Your task to perform on an android device: When is my next meeting? Image 0: 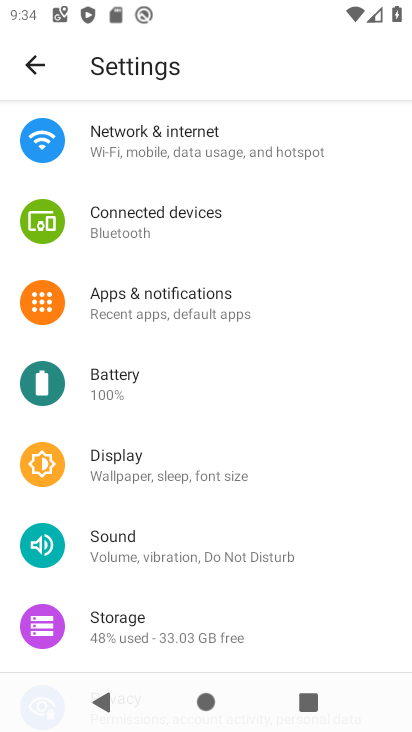
Step 0: press home button
Your task to perform on an android device: When is my next meeting? Image 1: 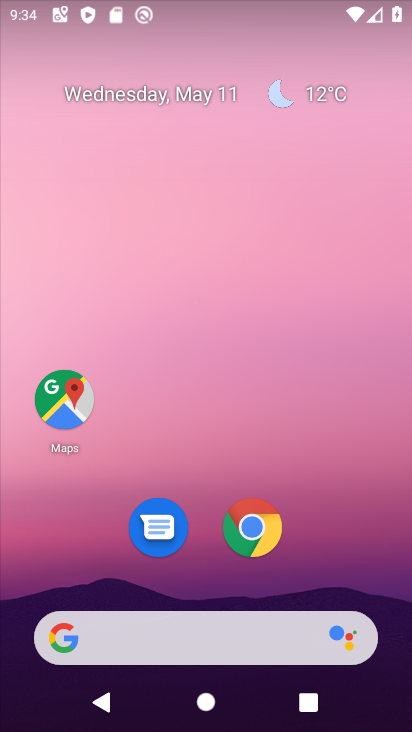
Step 1: drag from (344, 555) to (340, 48)
Your task to perform on an android device: When is my next meeting? Image 2: 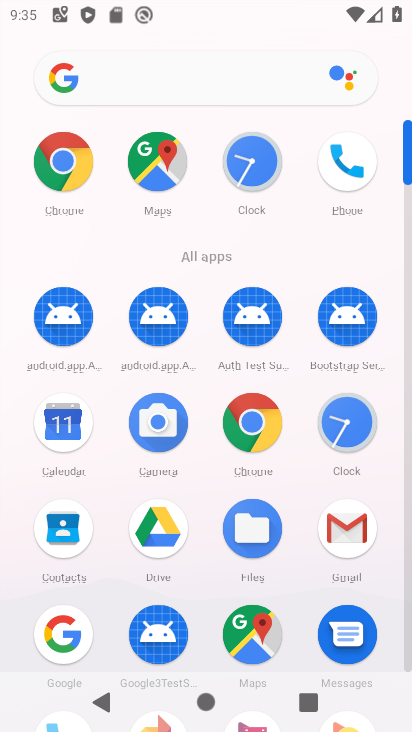
Step 2: click (80, 430)
Your task to perform on an android device: When is my next meeting? Image 3: 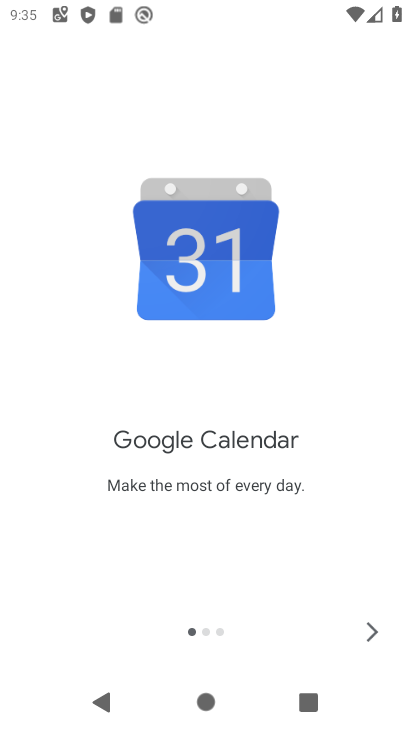
Step 3: click (367, 630)
Your task to perform on an android device: When is my next meeting? Image 4: 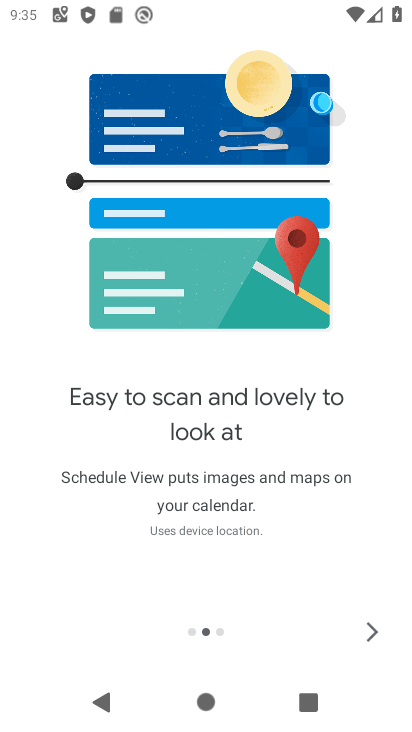
Step 4: click (367, 630)
Your task to perform on an android device: When is my next meeting? Image 5: 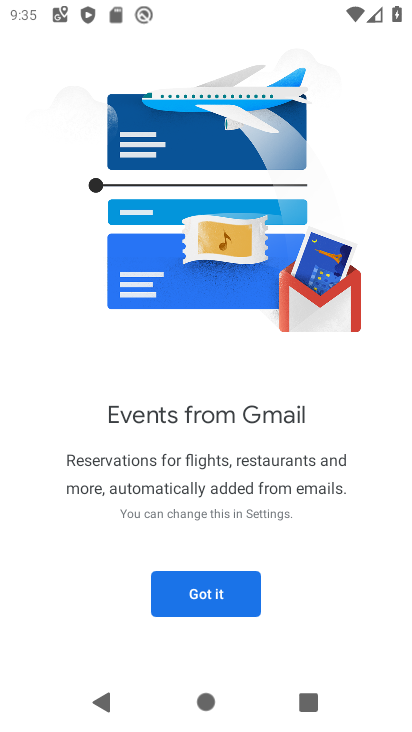
Step 5: click (199, 600)
Your task to perform on an android device: When is my next meeting? Image 6: 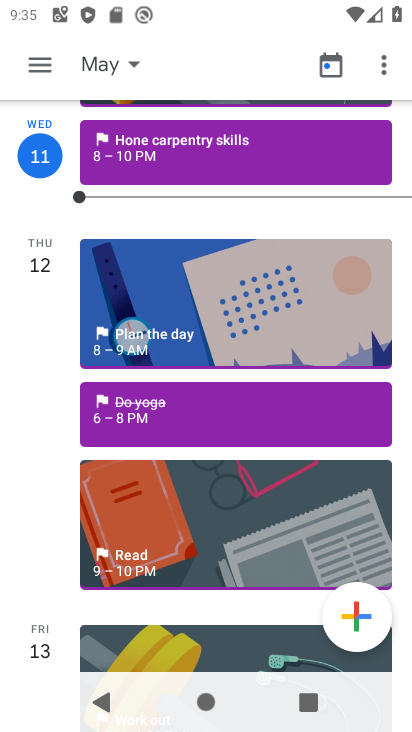
Step 6: click (87, 65)
Your task to perform on an android device: When is my next meeting? Image 7: 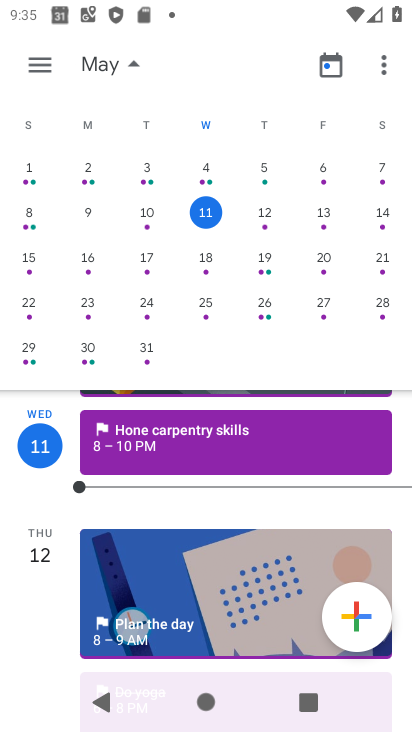
Step 7: task complete